Your task to perform on an android device: show emergency info Image 0: 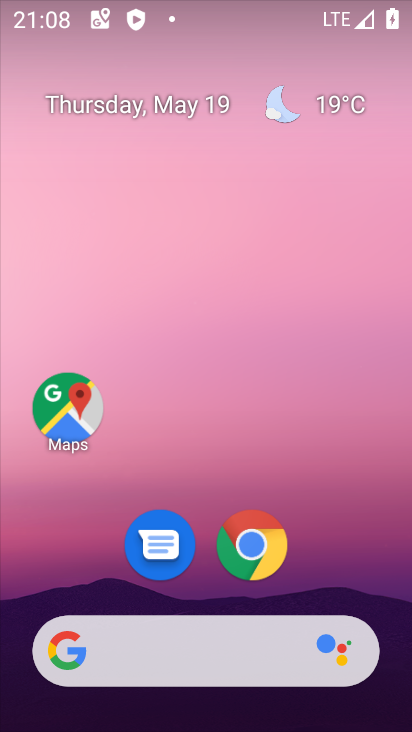
Step 0: drag from (329, 584) to (289, 166)
Your task to perform on an android device: show emergency info Image 1: 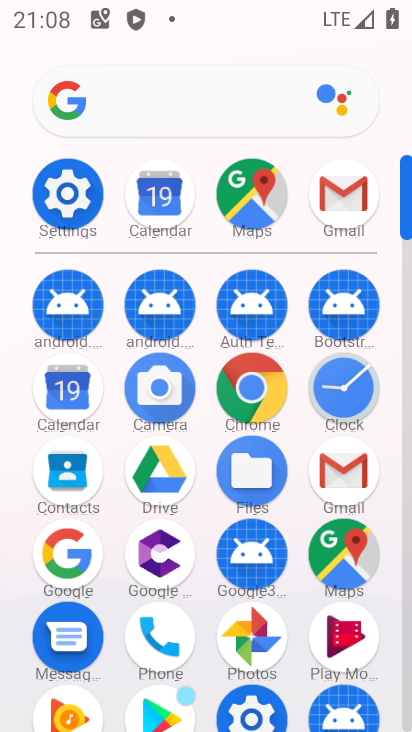
Step 1: click (41, 193)
Your task to perform on an android device: show emergency info Image 2: 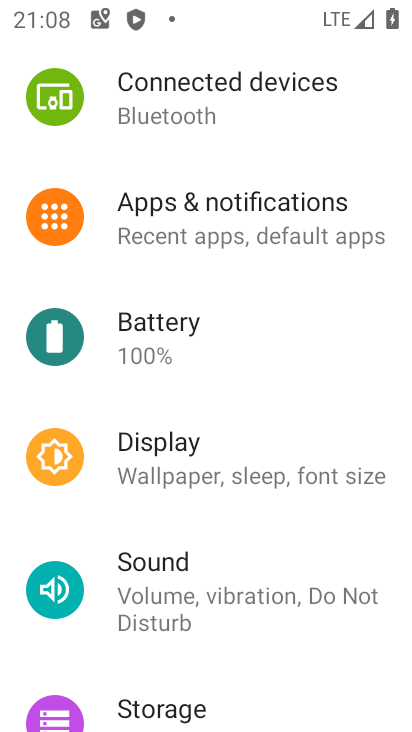
Step 2: drag from (127, 602) to (193, 128)
Your task to perform on an android device: show emergency info Image 3: 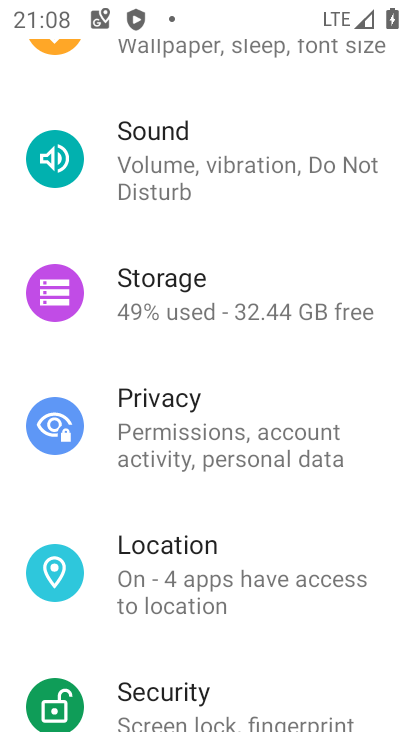
Step 3: drag from (200, 670) to (245, 298)
Your task to perform on an android device: show emergency info Image 4: 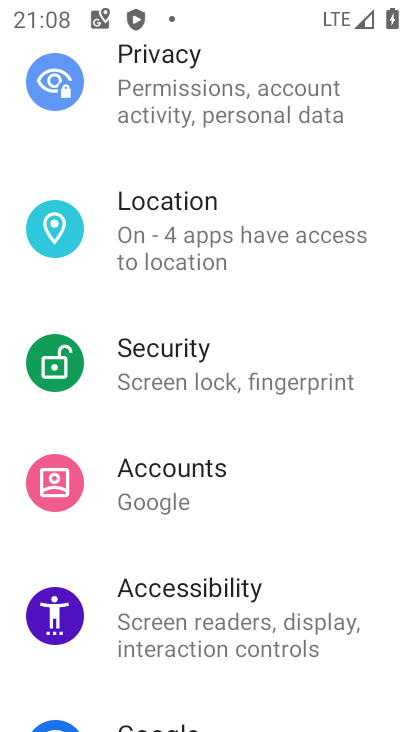
Step 4: drag from (186, 702) to (200, 276)
Your task to perform on an android device: show emergency info Image 5: 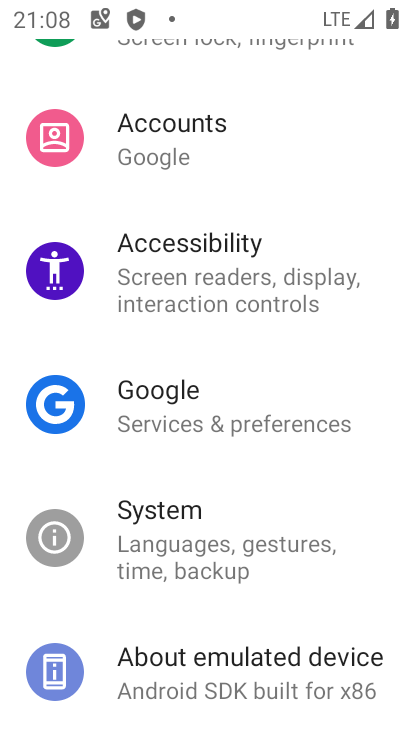
Step 5: click (273, 675)
Your task to perform on an android device: show emergency info Image 6: 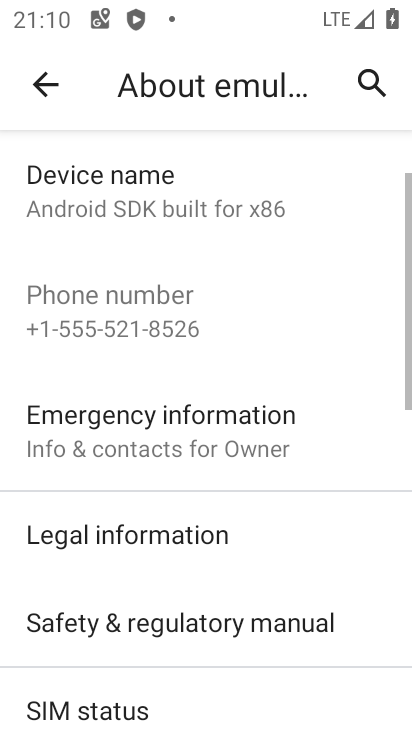
Step 6: click (193, 402)
Your task to perform on an android device: show emergency info Image 7: 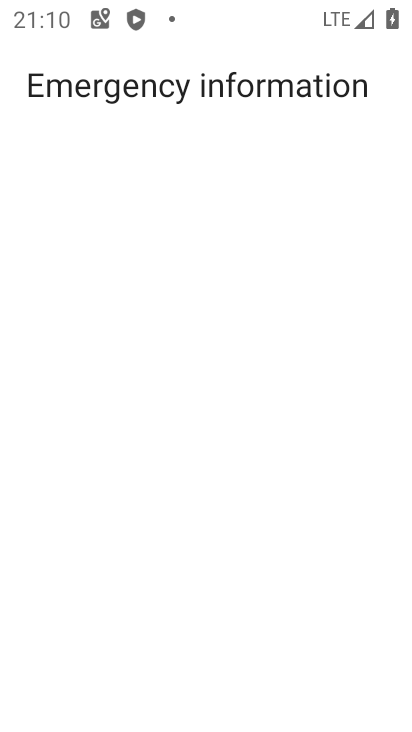
Step 7: task complete